Your task to perform on an android device: Search for energizer triple a on target.com, select the first entry, and add it to the cart. Image 0: 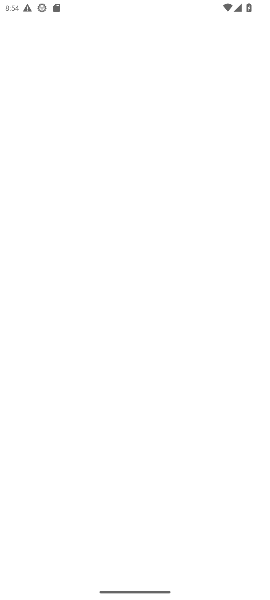
Step 0: click (168, 487)
Your task to perform on an android device: Search for energizer triple a on target.com, select the first entry, and add it to the cart. Image 1: 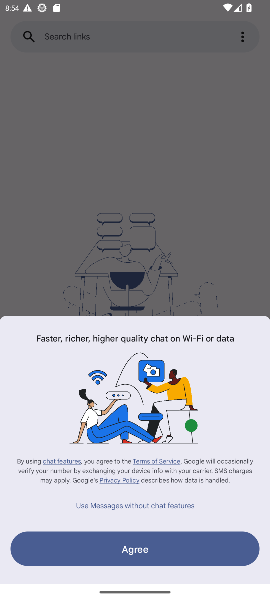
Step 1: press home button
Your task to perform on an android device: Search for energizer triple a on target.com, select the first entry, and add it to the cart. Image 2: 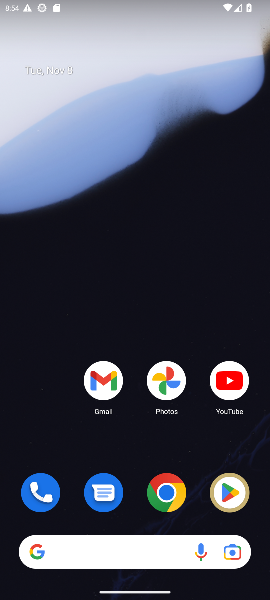
Step 2: click (164, 498)
Your task to perform on an android device: Search for energizer triple a on target.com, select the first entry, and add it to the cart. Image 3: 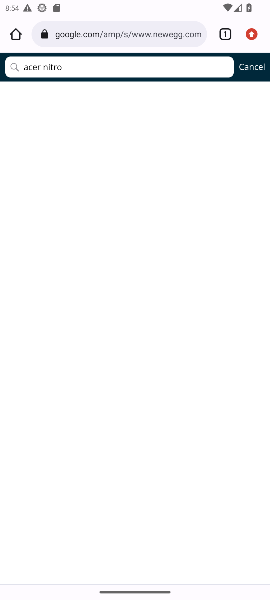
Step 3: click (167, 33)
Your task to perform on an android device: Search for energizer triple a on target.com, select the first entry, and add it to the cart. Image 4: 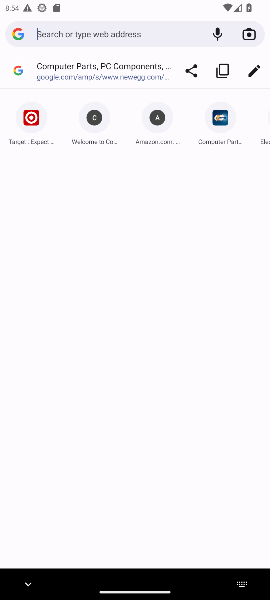
Step 4: click (21, 126)
Your task to perform on an android device: Search for energizer triple a on target.com, select the first entry, and add it to the cart. Image 5: 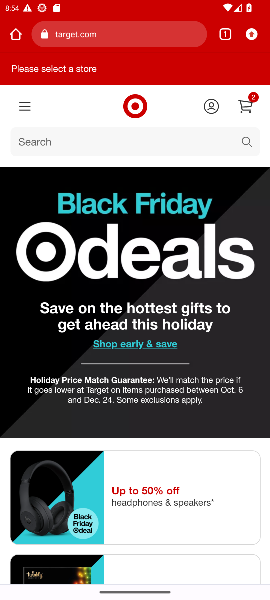
Step 5: click (248, 139)
Your task to perform on an android device: Search for energizer triple a on target.com, select the first entry, and add it to the cart. Image 6: 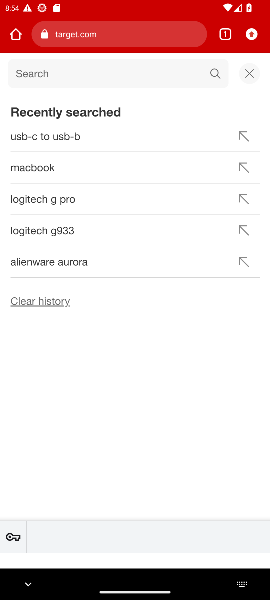
Step 6: type "energizer triple a"
Your task to perform on an android device: Search for energizer triple a on target.com, select the first entry, and add it to the cart. Image 7: 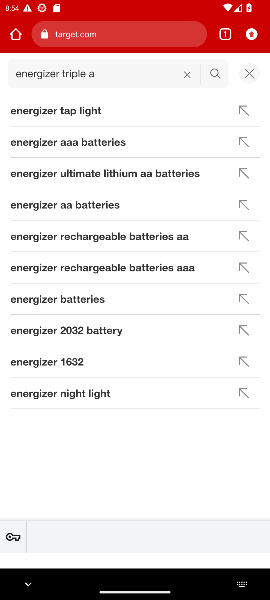
Step 7: click (209, 461)
Your task to perform on an android device: Search for energizer triple a on target.com, select the first entry, and add it to the cart. Image 8: 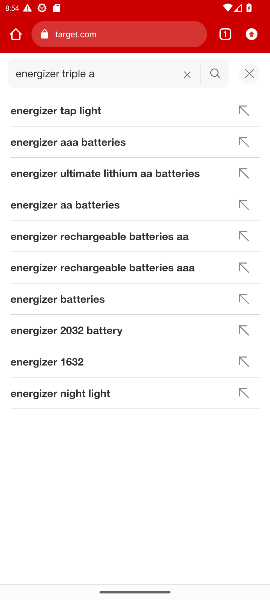
Step 8: click (206, 454)
Your task to perform on an android device: Search for energizer triple a on target.com, select the first entry, and add it to the cart. Image 9: 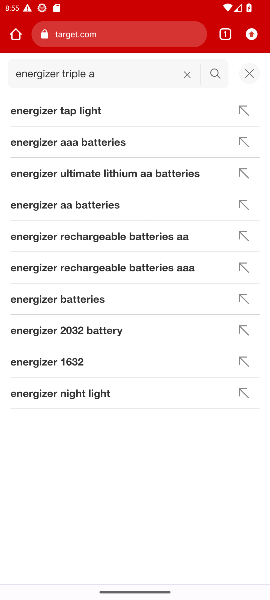
Step 9: click (43, 138)
Your task to perform on an android device: Search for energizer triple a on target.com, select the first entry, and add it to the cart. Image 10: 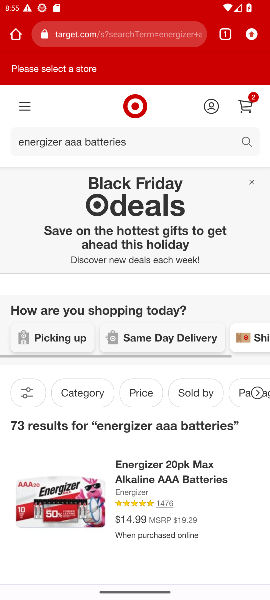
Step 10: click (80, 496)
Your task to perform on an android device: Search for energizer triple a on target.com, select the first entry, and add it to the cart. Image 11: 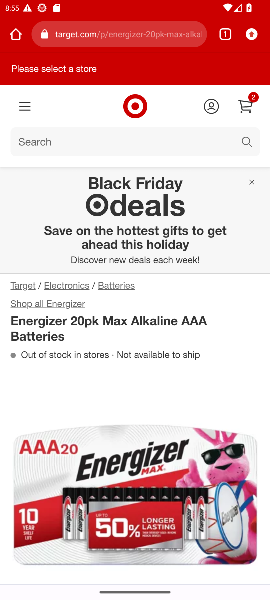
Step 11: drag from (129, 478) to (116, 161)
Your task to perform on an android device: Search for energizer triple a on target.com, select the first entry, and add it to the cart. Image 12: 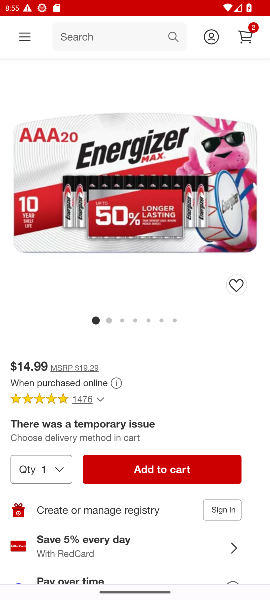
Step 12: click (182, 467)
Your task to perform on an android device: Search for energizer triple a on target.com, select the first entry, and add it to the cart. Image 13: 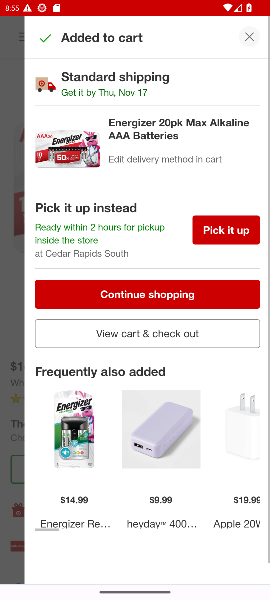
Step 13: click (245, 34)
Your task to perform on an android device: Search for energizer triple a on target.com, select the first entry, and add it to the cart. Image 14: 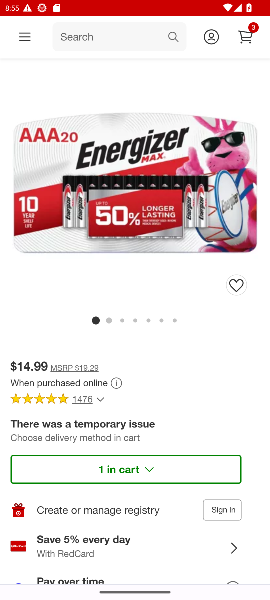
Step 14: task complete